Your task to perform on an android device: Open Yahoo.com Image 0: 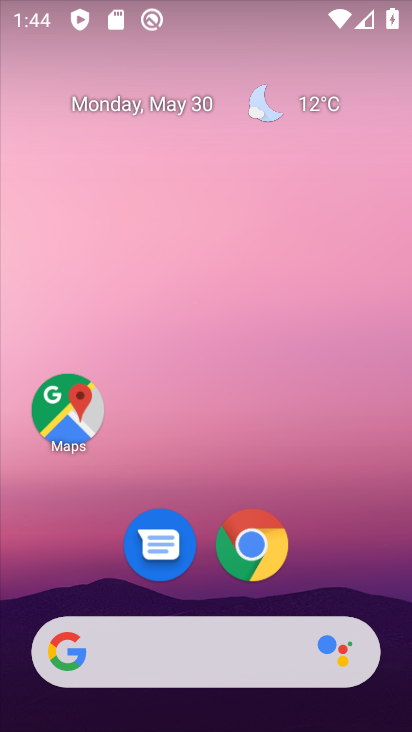
Step 0: click (249, 540)
Your task to perform on an android device: Open Yahoo.com Image 1: 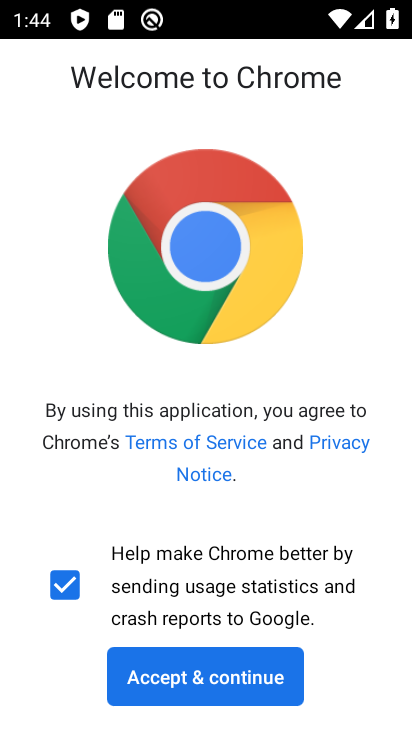
Step 1: click (164, 663)
Your task to perform on an android device: Open Yahoo.com Image 2: 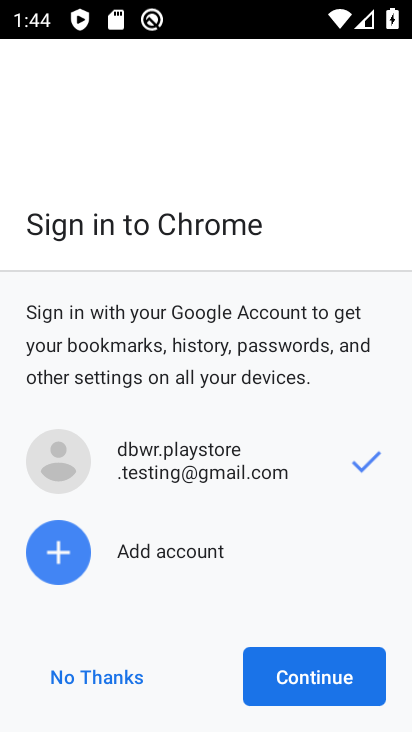
Step 2: click (315, 662)
Your task to perform on an android device: Open Yahoo.com Image 3: 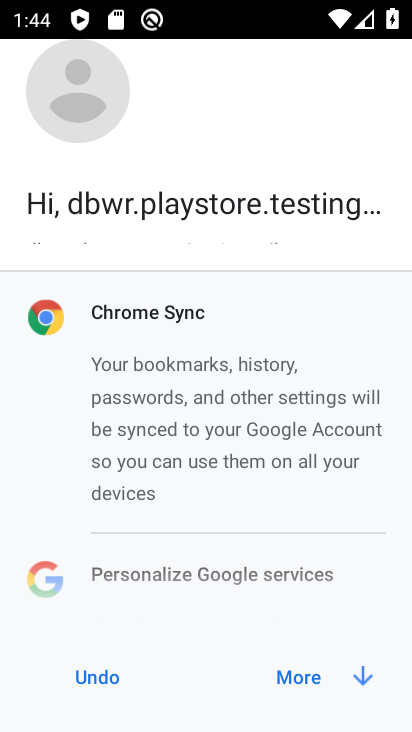
Step 3: click (337, 669)
Your task to perform on an android device: Open Yahoo.com Image 4: 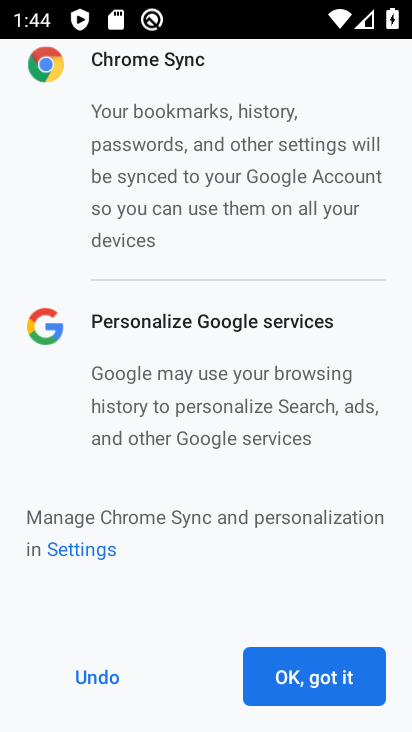
Step 4: click (337, 669)
Your task to perform on an android device: Open Yahoo.com Image 5: 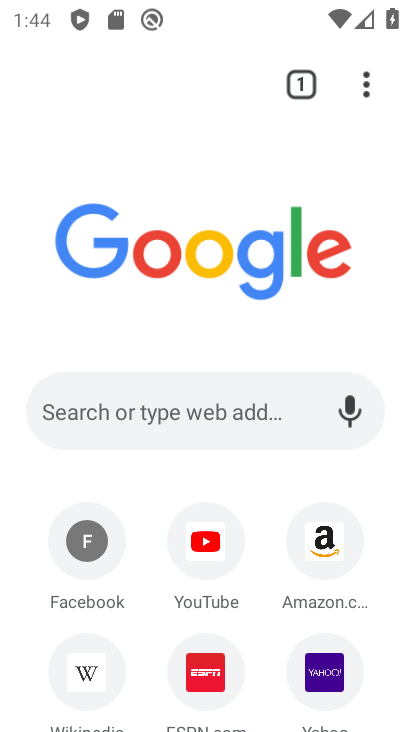
Step 5: click (301, 665)
Your task to perform on an android device: Open Yahoo.com Image 6: 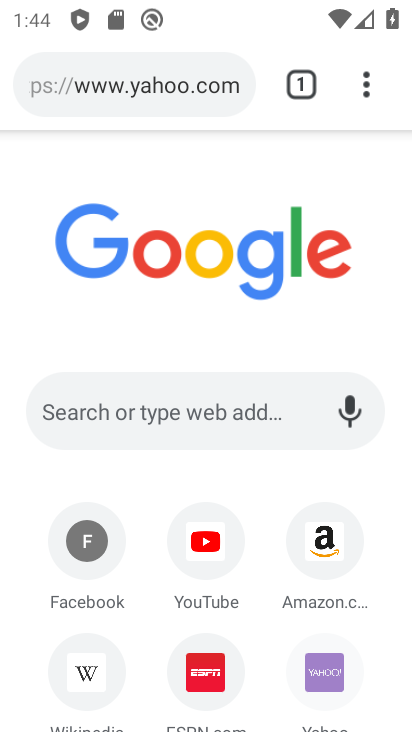
Step 6: click (312, 676)
Your task to perform on an android device: Open Yahoo.com Image 7: 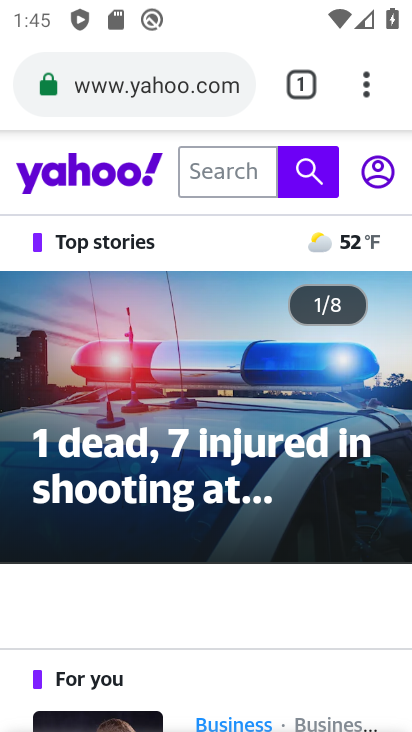
Step 7: task complete